Your task to perform on an android device: turn on javascript in the chrome app Image 0: 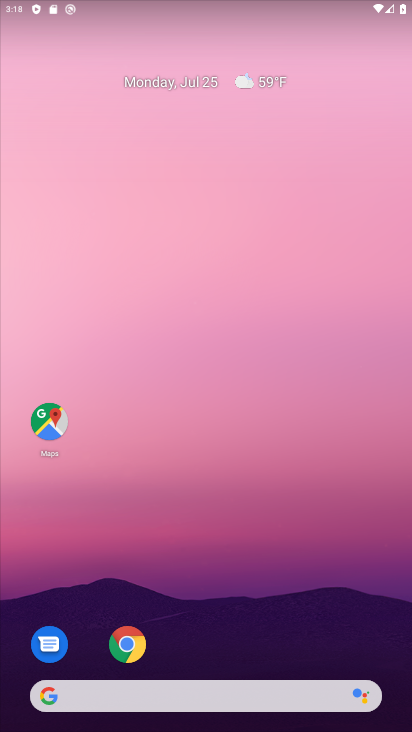
Step 0: click (133, 645)
Your task to perform on an android device: turn on javascript in the chrome app Image 1: 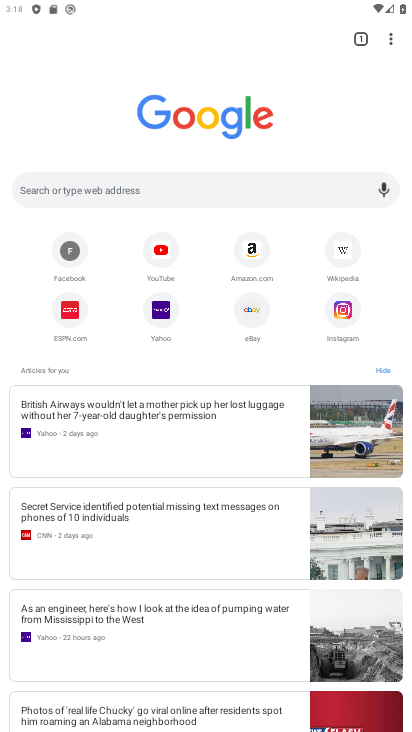
Step 1: click (391, 30)
Your task to perform on an android device: turn on javascript in the chrome app Image 2: 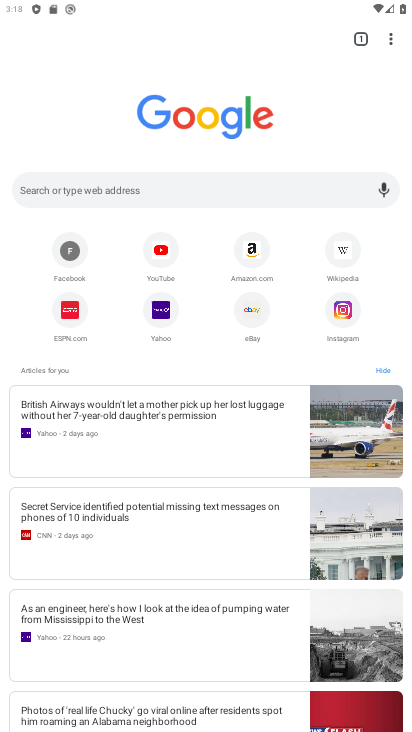
Step 2: click (386, 40)
Your task to perform on an android device: turn on javascript in the chrome app Image 3: 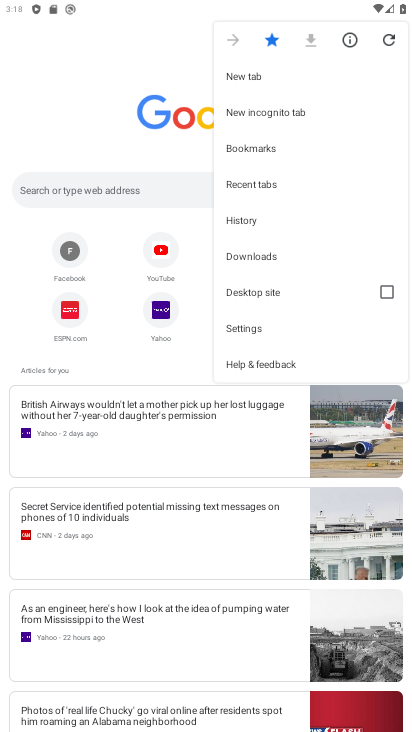
Step 3: click (238, 328)
Your task to perform on an android device: turn on javascript in the chrome app Image 4: 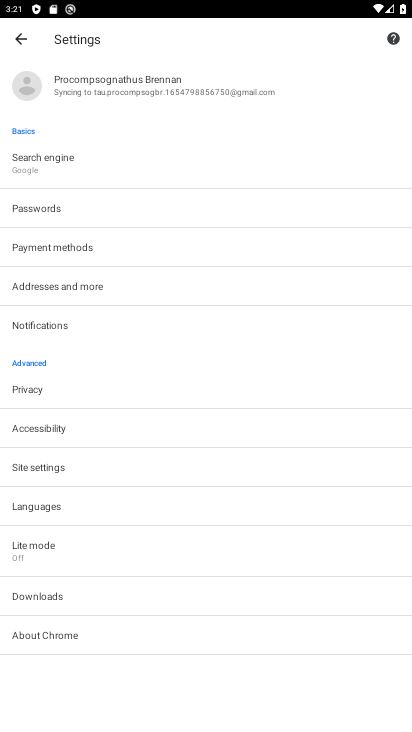
Step 4: click (41, 469)
Your task to perform on an android device: turn on javascript in the chrome app Image 5: 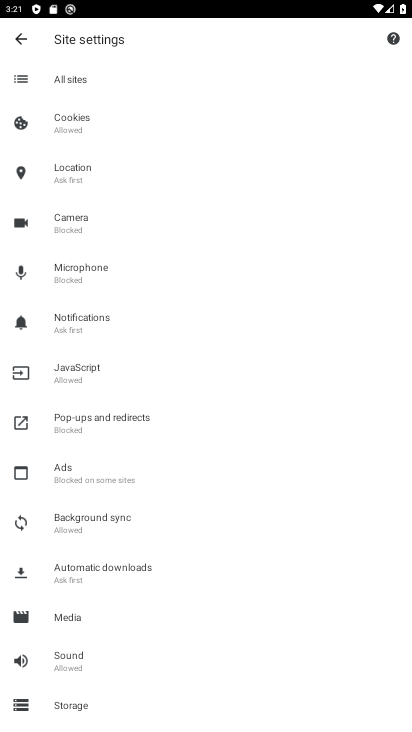
Step 5: click (81, 380)
Your task to perform on an android device: turn on javascript in the chrome app Image 6: 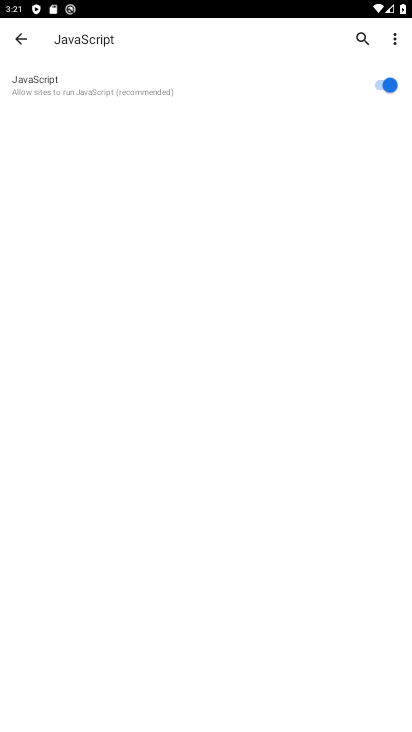
Step 6: task complete